Your task to perform on an android device: Open the stopwatch Image 0: 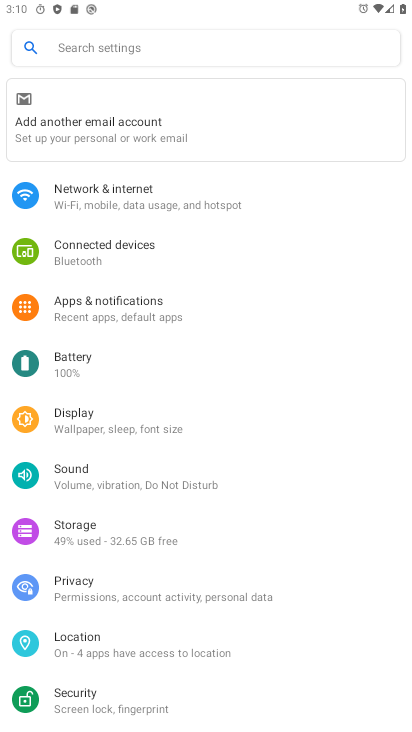
Step 0: press home button
Your task to perform on an android device: Open the stopwatch Image 1: 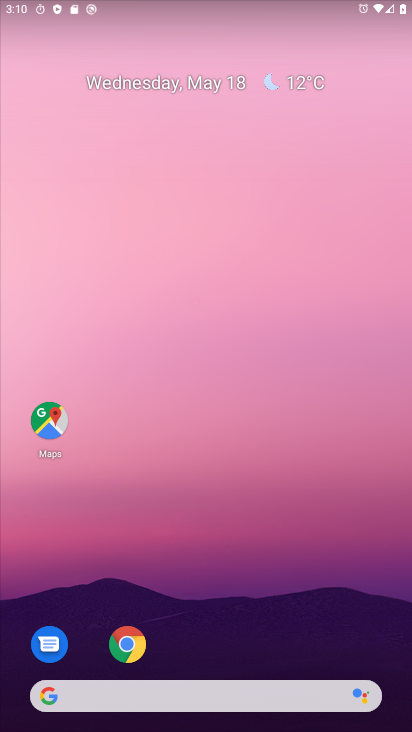
Step 1: drag from (396, 672) to (310, 264)
Your task to perform on an android device: Open the stopwatch Image 2: 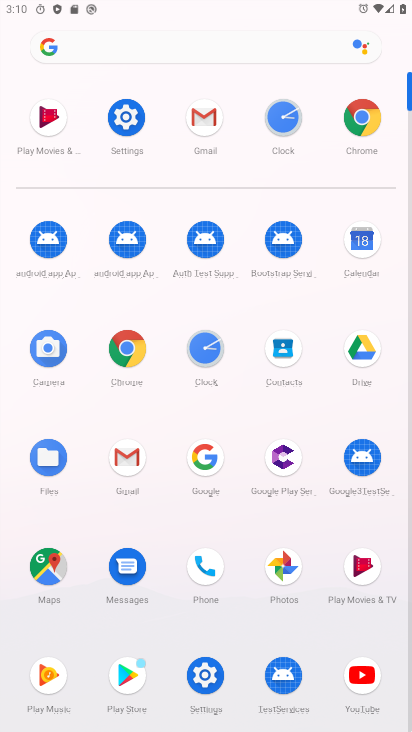
Step 2: click (202, 353)
Your task to perform on an android device: Open the stopwatch Image 3: 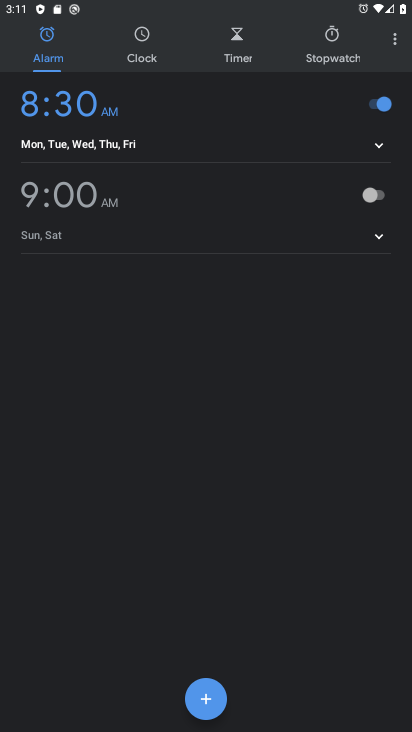
Step 3: click (317, 48)
Your task to perform on an android device: Open the stopwatch Image 4: 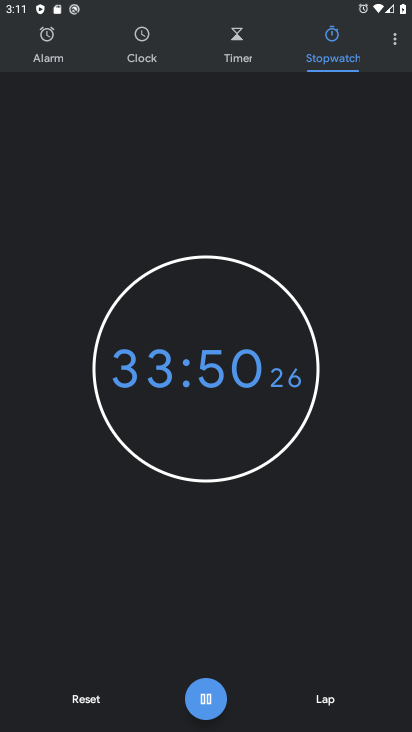
Step 4: click (84, 698)
Your task to perform on an android device: Open the stopwatch Image 5: 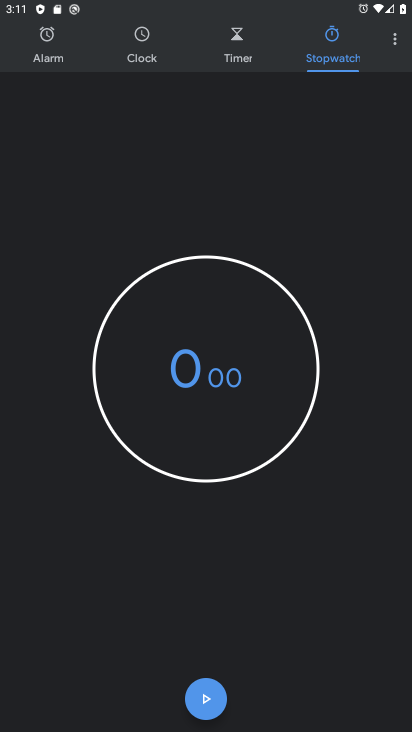
Step 5: click (192, 702)
Your task to perform on an android device: Open the stopwatch Image 6: 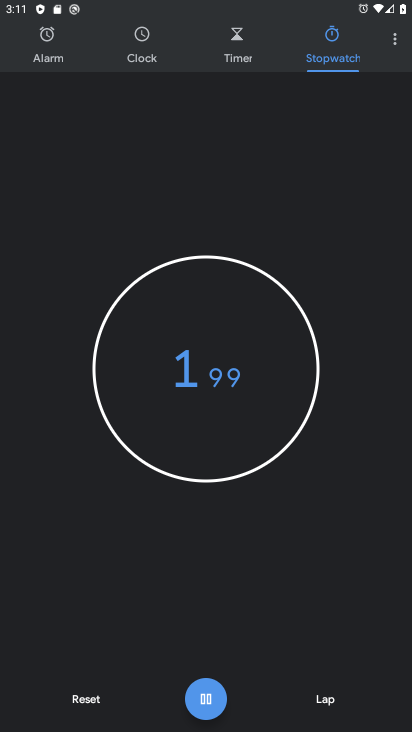
Step 6: task complete